Your task to perform on an android device: Search for pizza restaurants on Maps Image 0: 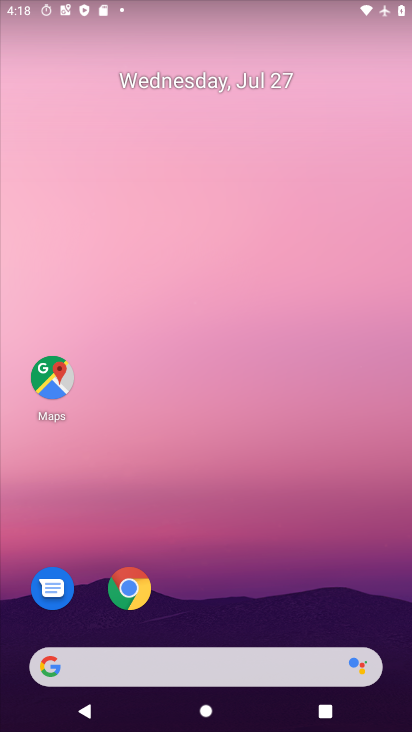
Step 0: press home button
Your task to perform on an android device: Search for pizza restaurants on Maps Image 1: 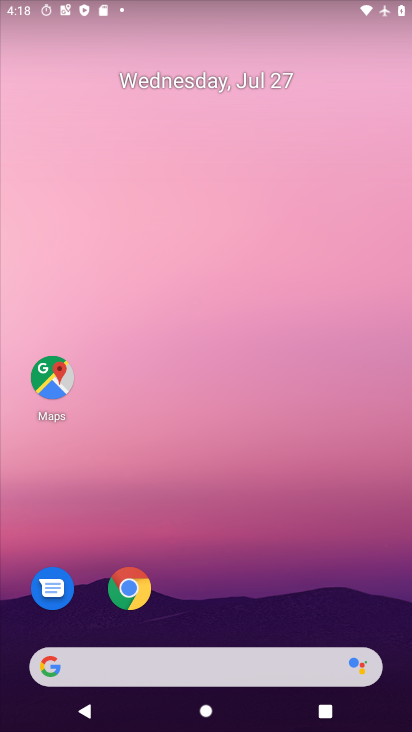
Step 1: click (50, 375)
Your task to perform on an android device: Search for pizza restaurants on Maps Image 2: 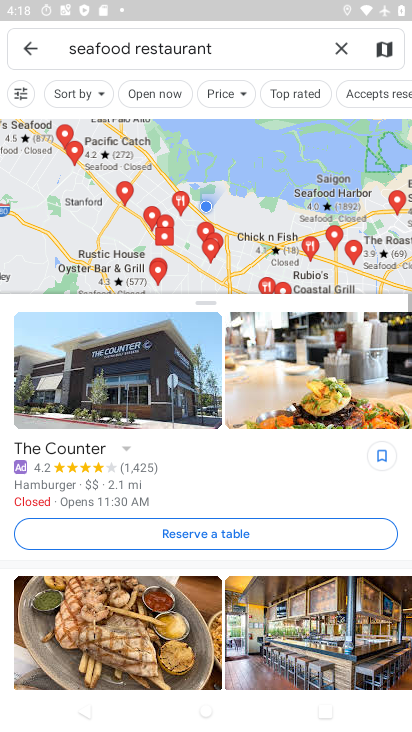
Step 2: click (31, 39)
Your task to perform on an android device: Search for pizza restaurants on Maps Image 3: 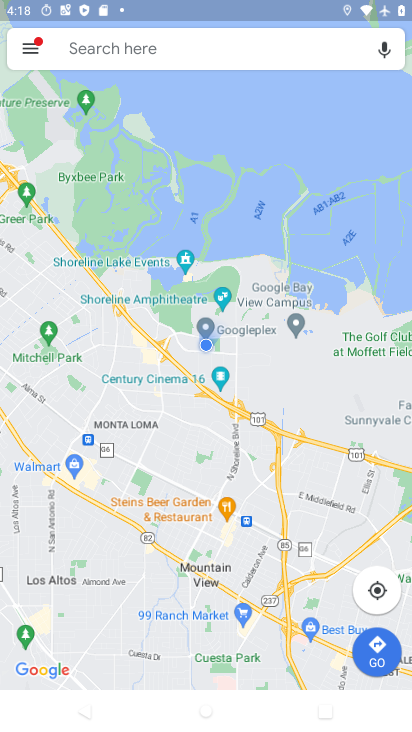
Step 3: click (66, 46)
Your task to perform on an android device: Search for pizza restaurants on Maps Image 4: 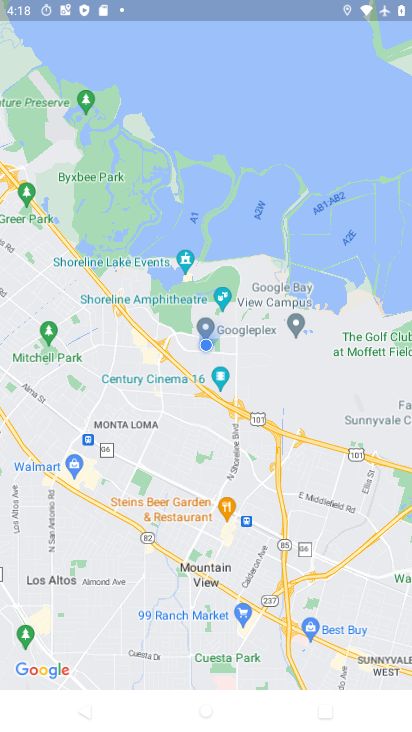
Step 4: press back button
Your task to perform on an android device: Search for pizza restaurants on Maps Image 5: 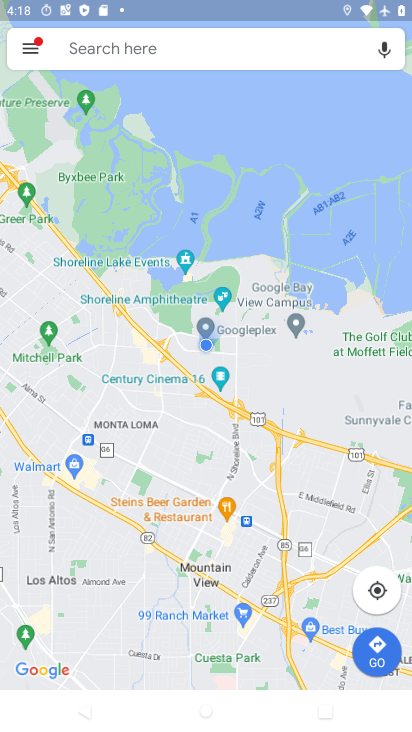
Step 5: click (198, 67)
Your task to perform on an android device: Search for pizza restaurants on Maps Image 6: 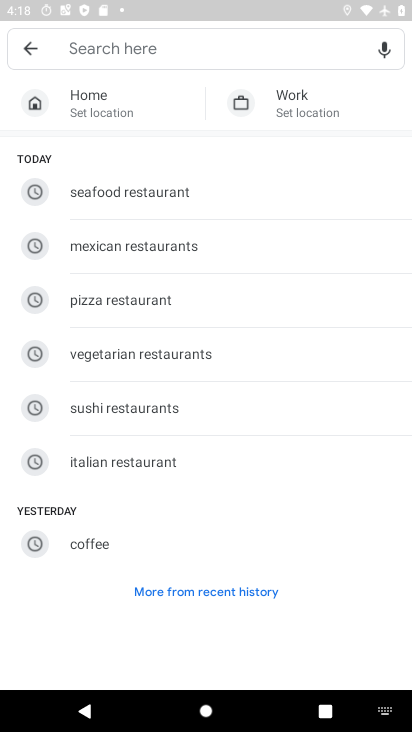
Step 6: click (140, 303)
Your task to perform on an android device: Search for pizza restaurants on Maps Image 7: 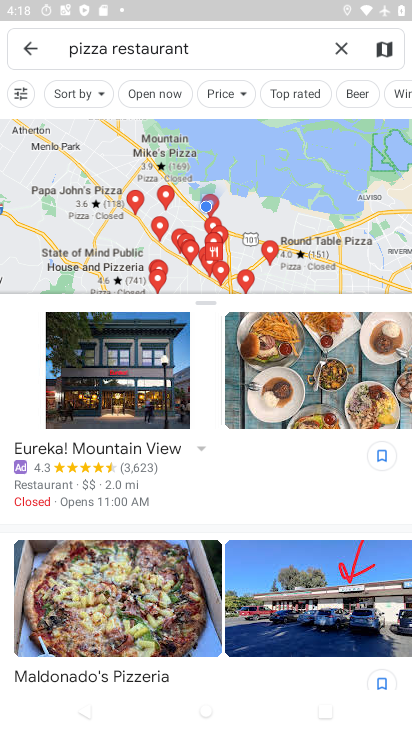
Step 7: task complete